Your task to perform on an android device: Go to wifi settings Image 0: 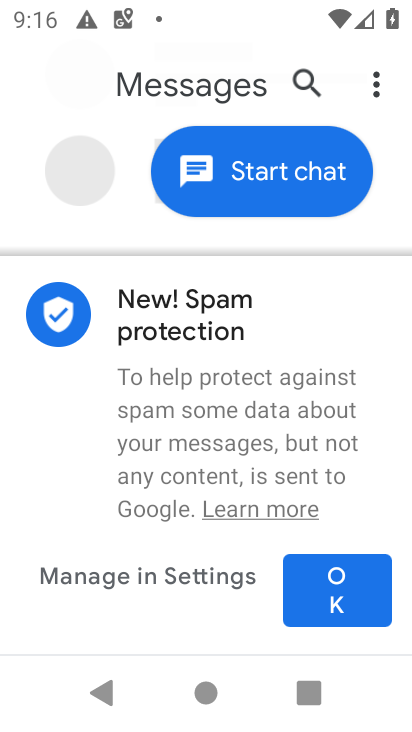
Step 0: press home button
Your task to perform on an android device: Go to wifi settings Image 1: 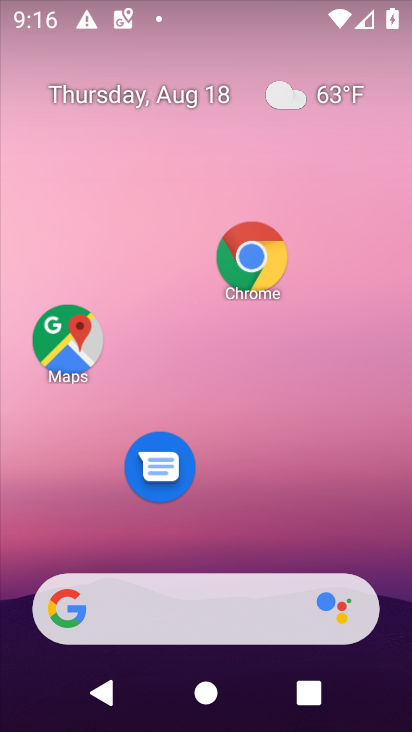
Step 1: task complete